Your task to perform on an android device: toggle priority inbox in the gmail app Image 0: 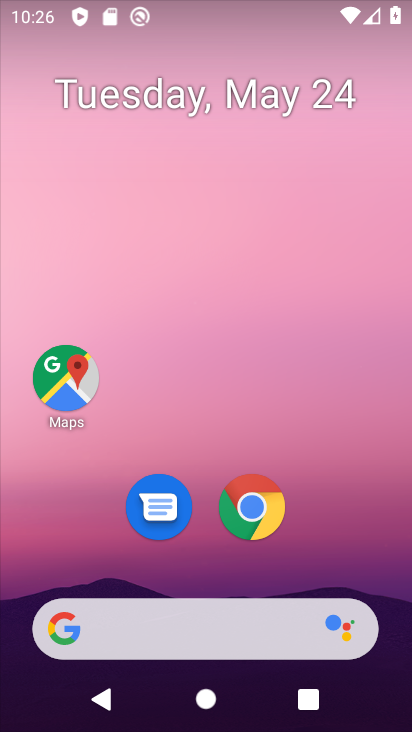
Step 0: drag from (200, 647) to (345, 0)
Your task to perform on an android device: toggle priority inbox in the gmail app Image 1: 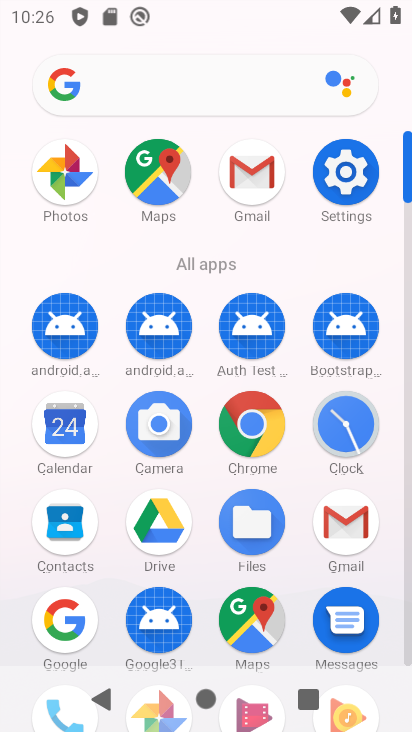
Step 1: click (255, 433)
Your task to perform on an android device: toggle priority inbox in the gmail app Image 2: 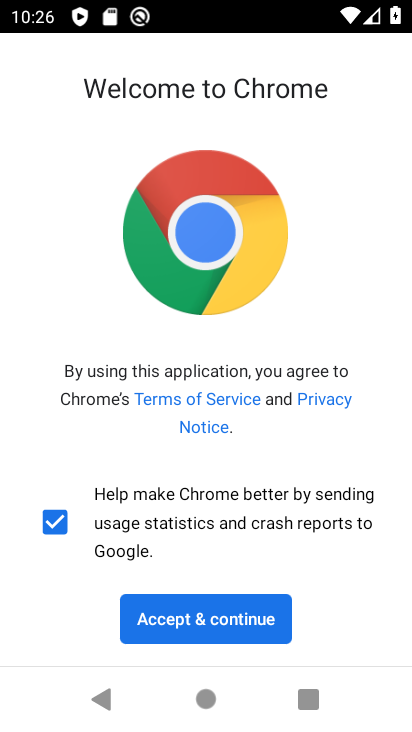
Step 2: click (268, 624)
Your task to perform on an android device: toggle priority inbox in the gmail app Image 3: 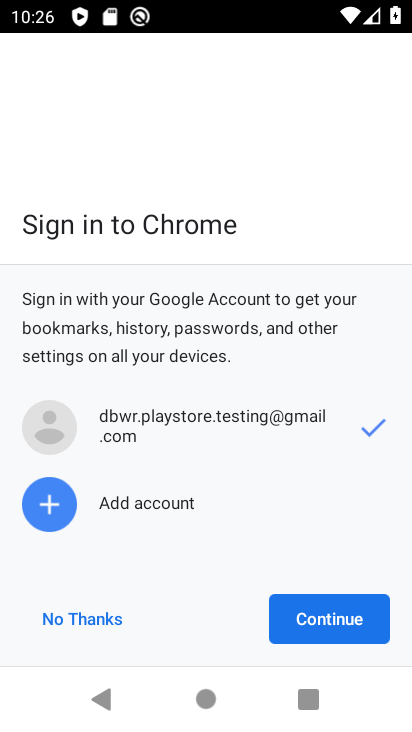
Step 3: click (96, 621)
Your task to perform on an android device: toggle priority inbox in the gmail app Image 4: 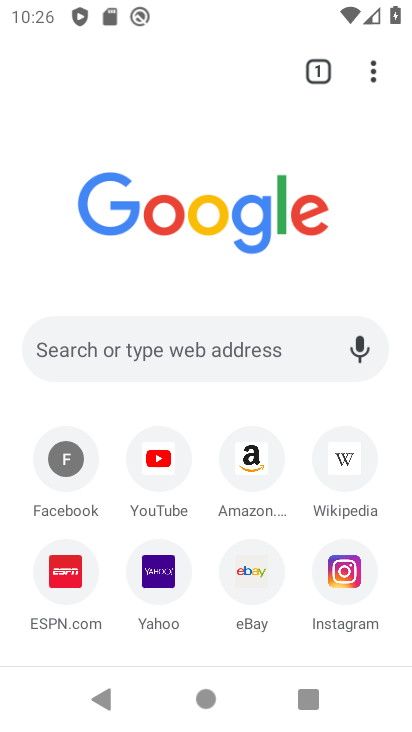
Step 4: press home button
Your task to perform on an android device: toggle priority inbox in the gmail app Image 5: 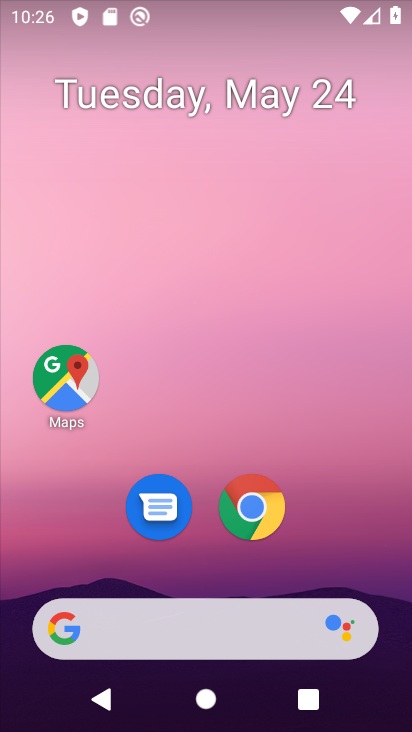
Step 5: drag from (249, 612) to (286, 0)
Your task to perform on an android device: toggle priority inbox in the gmail app Image 6: 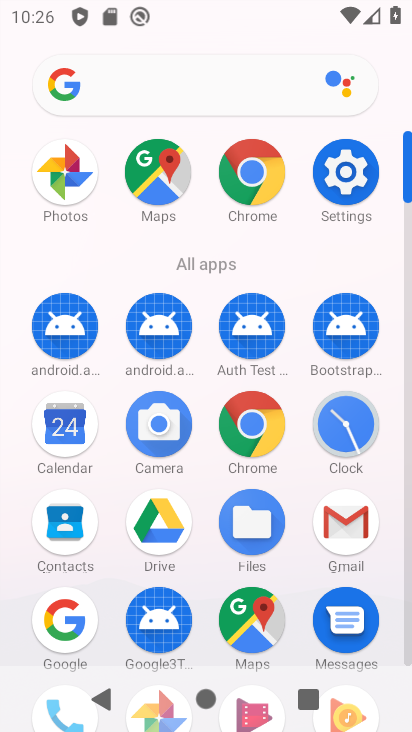
Step 6: click (355, 536)
Your task to perform on an android device: toggle priority inbox in the gmail app Image 7: 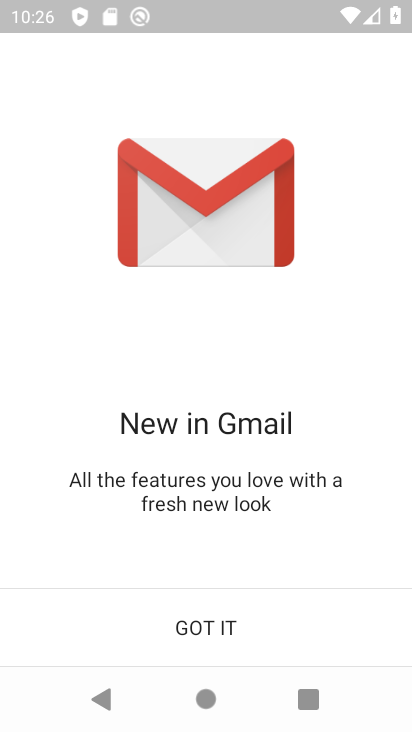
Step 7: click (238, 621)
Your task to perform on an android device: toggle priority inbox in the gmail app Image 8: 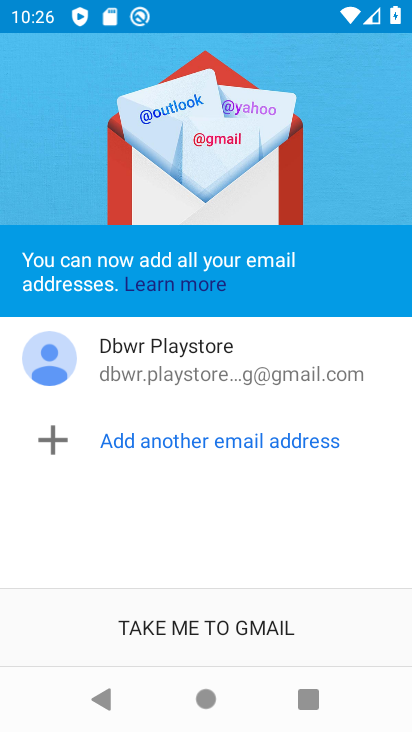
Step 8: click (238, 621)
Your task to perform on an android device: toggle priority inbox in the gmail app Image 9: 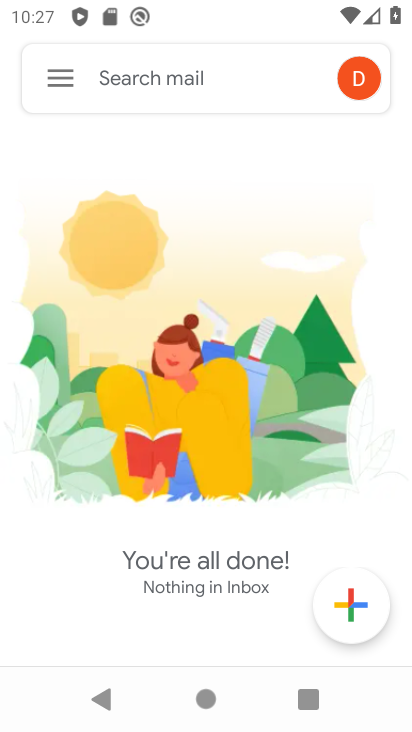
Step 9: click (52, 73)
Your task to perform on an android device: toggle priority inbox in the gmail app Image 10: 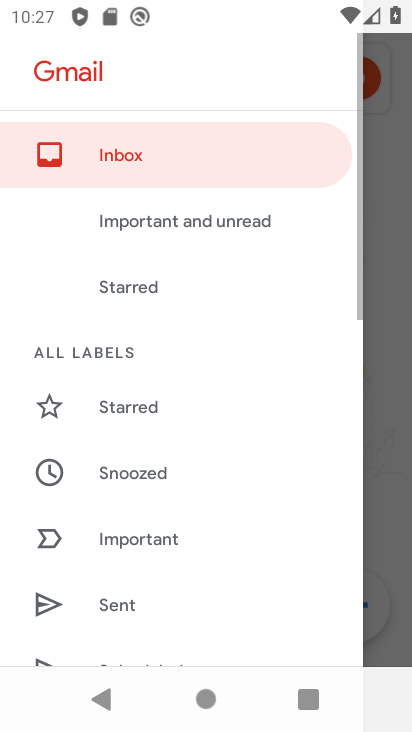
Step 10: drag from (189, 588) to (206, 80)
Your task to perform on an android device: toggle priority inbox in the gmail app Image 11: 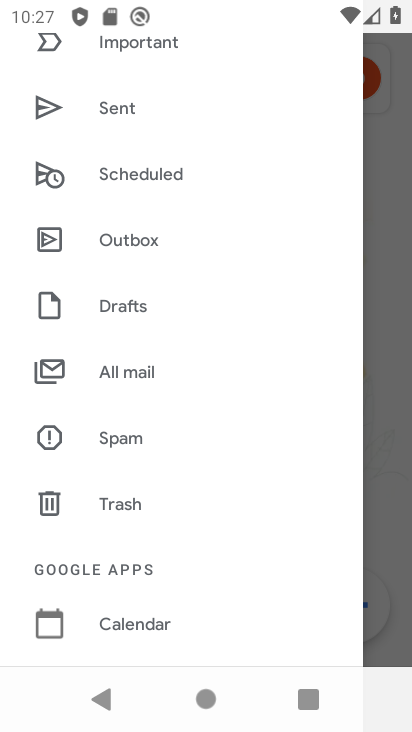
Step 11: drag from (203, 635) to (192, 274)
Your task to perform on an android device: toggle priority inbox in the gmail app Image 12: 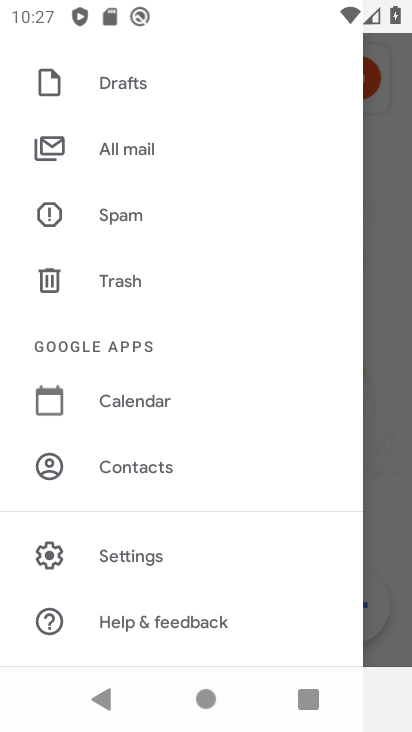
Step 12: click (153, 548)
Your task to perform on an android device: toggle priority inbox in the gmail app Image 13: 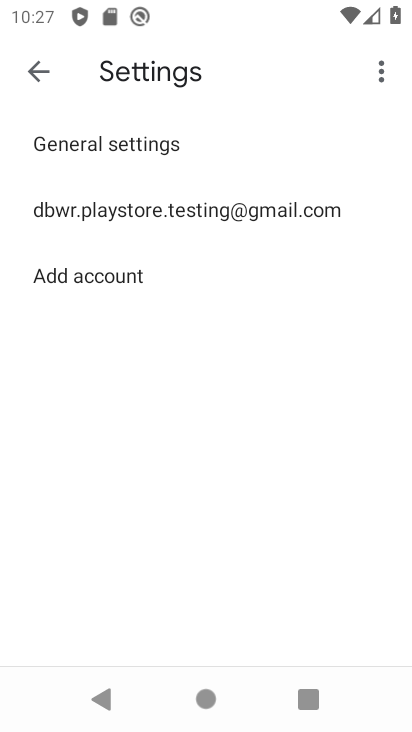
Step 13: click (182, 226)
Your task to perform on an android device: toggle priority inbox in the gmail app Image 14: 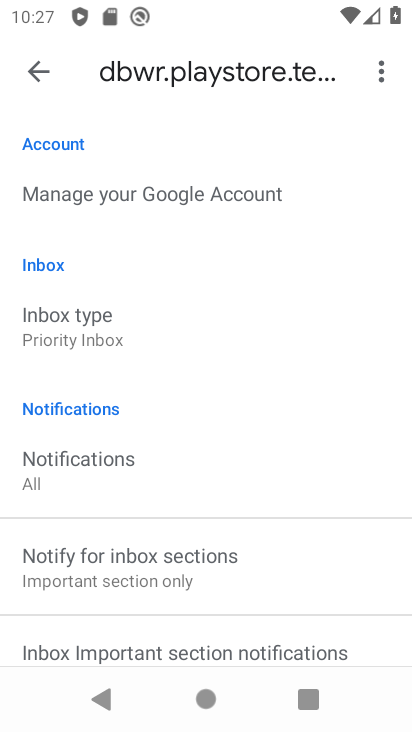
Step 14: click (123, 317)
Your task to perform on an android device: toggle priority inbox in the gmail app Image 15: 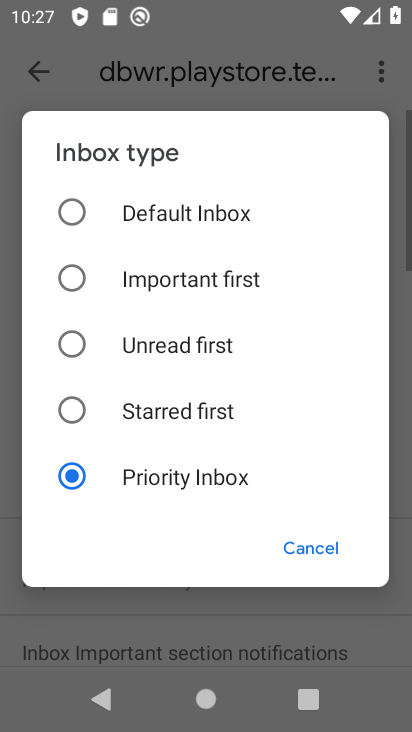
Step 15: click (114, 343)
Your task to perform on an android device: toggle priority inbox in the gmail app Image 16: 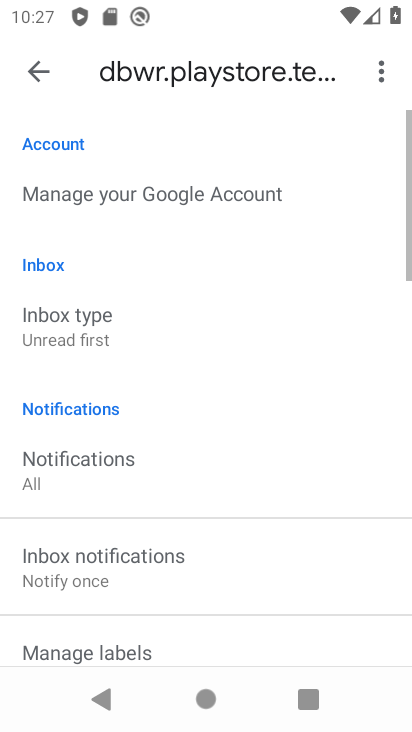
Step 16: task complete